Your task to perform on an android device: View the shopping cart on target.com. Add razer kraken to the cart on target.com, then select checkout. Image 0: 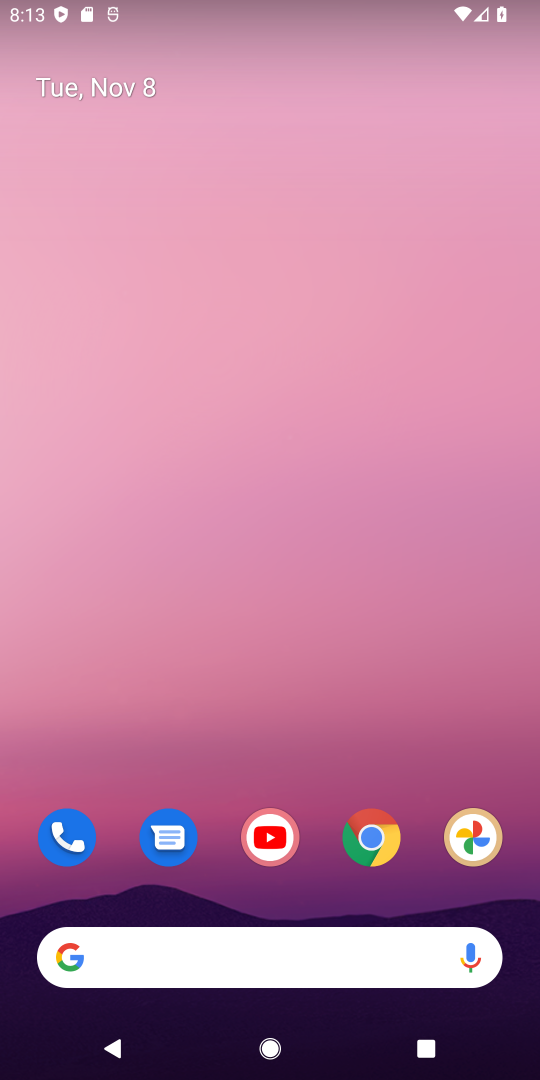
Step 0: click (365, 841)
Your task to perform on an android device: View the shopping cart on target.com. Add razer kraken to the cart on target.com, then select checkout. Image 1: 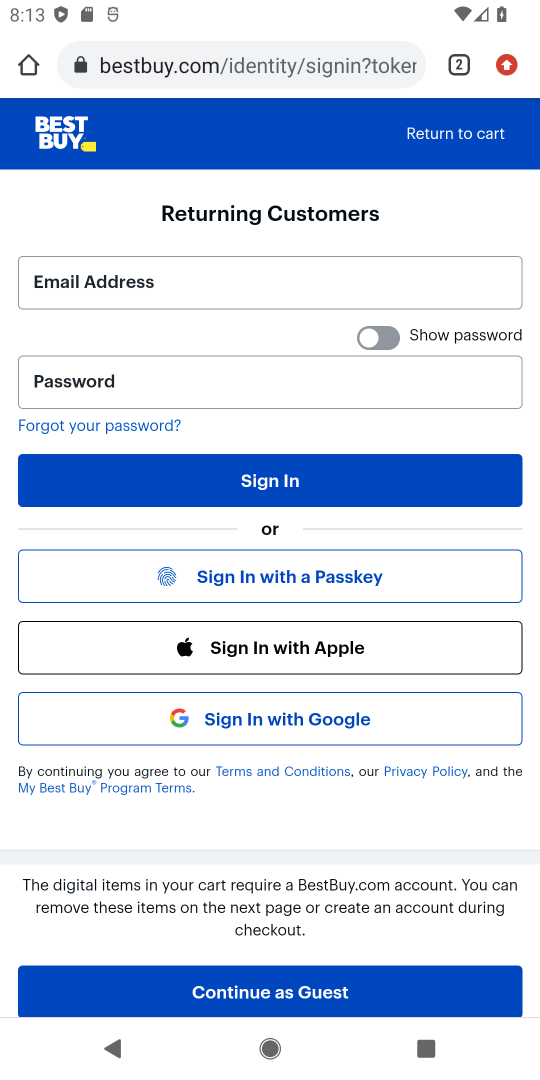
Step 1: click (456, 66)
Your task to perform on an android device: View the shopping cart on target.com. Add razer kraken to the cart on target.com, then select checkout. Image 2: 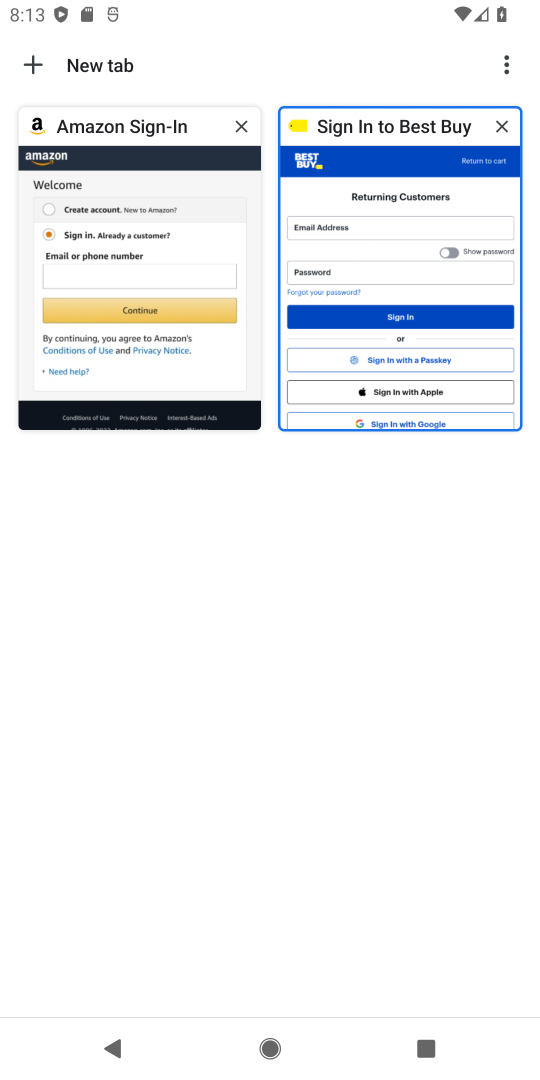
Step 2: click (40, 68)
Your task to perform on an android device: View the shopping cart on target.com. Add razer kraken to the cart on target.com, then select checkout. Image 3: 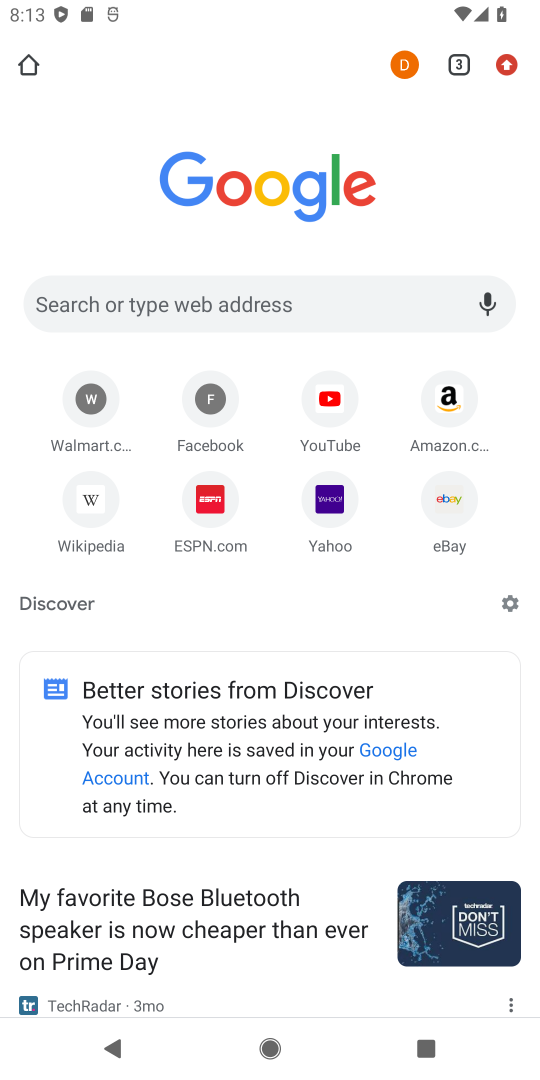
Step 3: click (213, 299)
Your task to perform on an android device: View the shopping cart on target.com. Add razer kraken to the cart on target.com, then select checkout. Image 4: 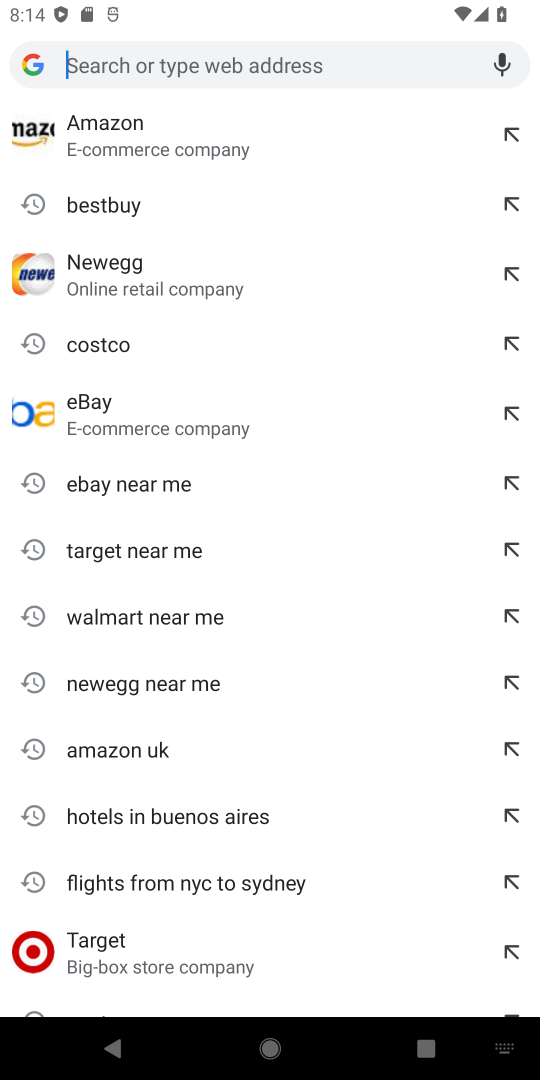
Step 4: click (108, 952)
Your task to perform on an android device: View the shopping cart on target.com. Add razer kraken to the cart on target.com, then select checkout. Image 5: 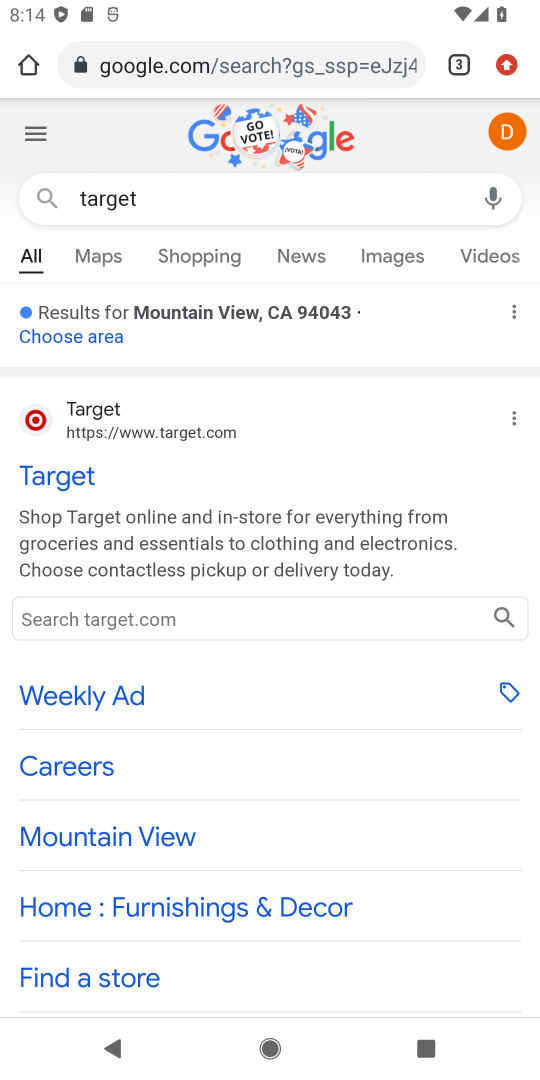
Step 5: click (144, 612)
Your task to perform on an android device: View the shopping cart on target.com. Add razer kraken to the cart on target.com, then select checkout. Image 6: 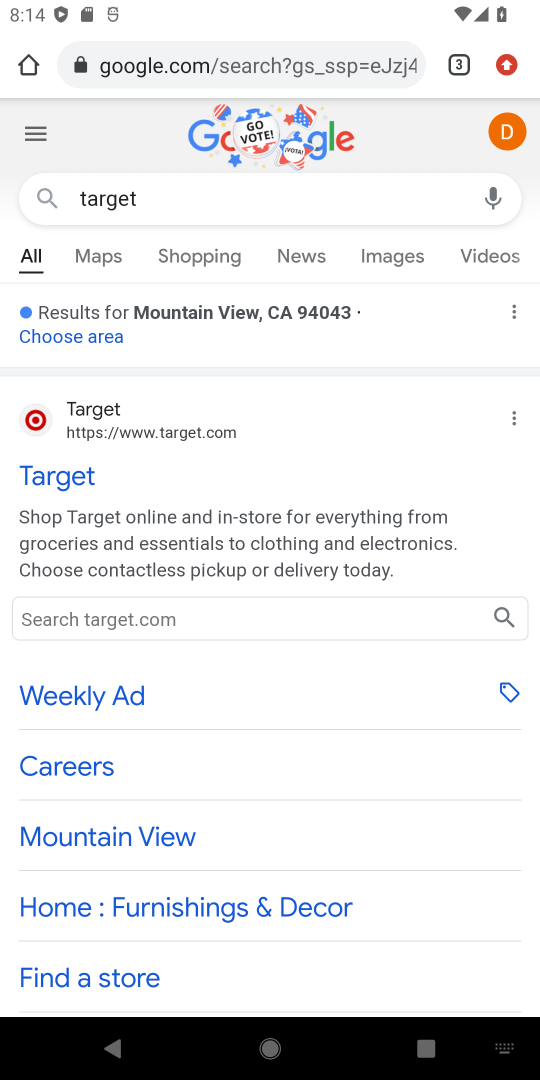
Step 6: type "razer kraken"
Your task to perform on an android device: View the shopping cart on target.com. Add razer kraken to the cart on target.com, then select checkout. Image 7: 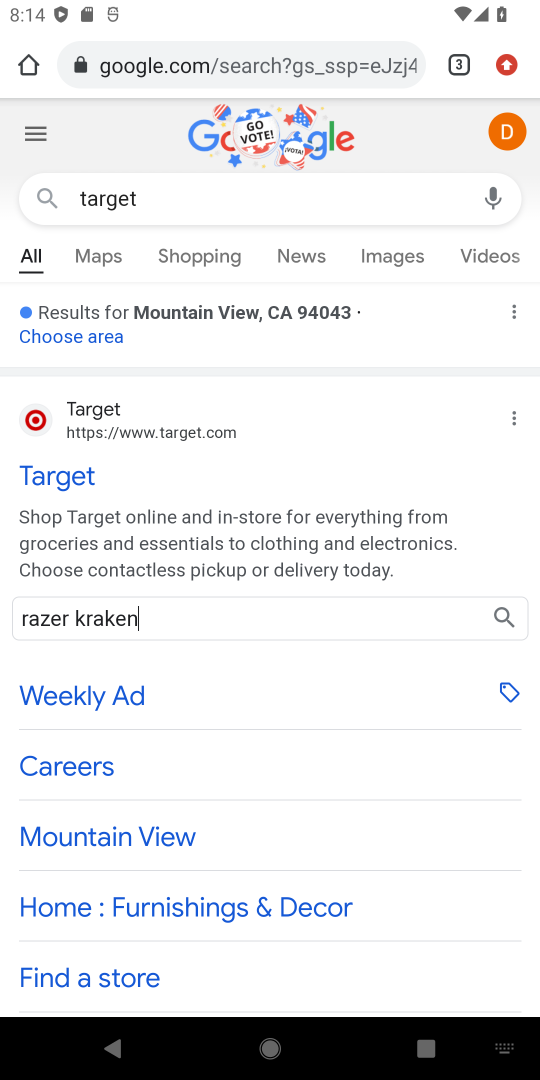
Step 7: click (506, 611)
Your task to perform on an android device: View the shopping cart on target.com. Add razer kraken to the cart on target.com, then select checkout. Image 8: 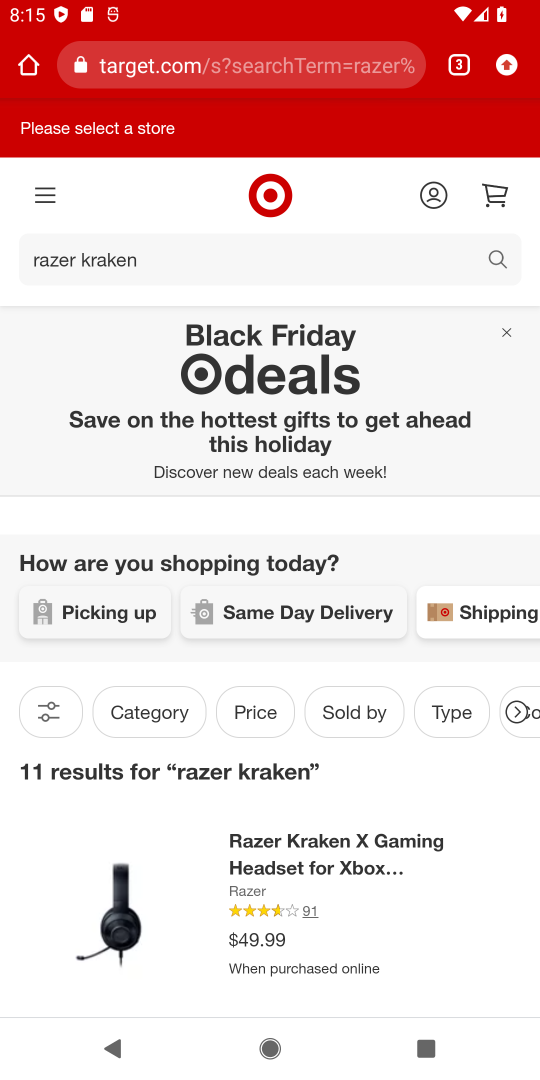
Step 8: drag from (348, 929) to (317, 227)
Your task to perform on an android device: View the shopping cart on target.com. Add razer kraken to the cart on target.com, then select checkout. Image 9: 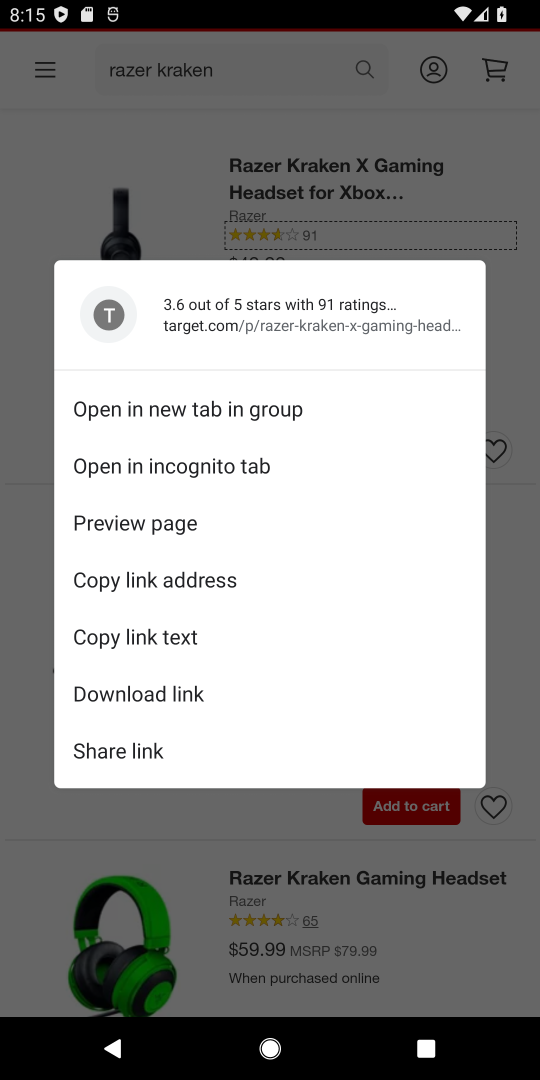
Step 9: click (327, 904)
Your task to perform on an android device: View the shopping cart on target.com. Add razer kraken to the cart on target.com, then select checkout. Image 10: 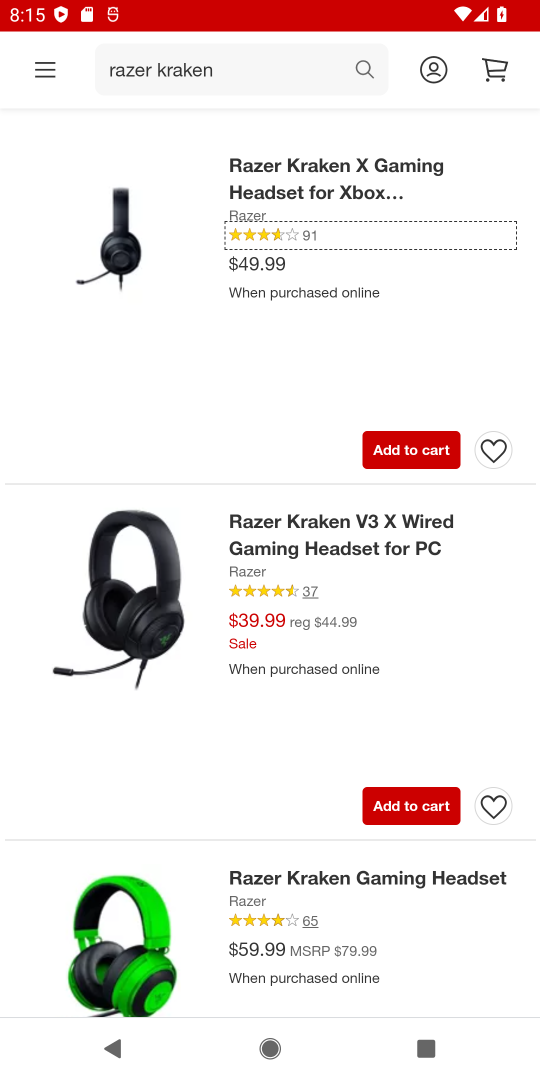
Step 10: click (400, 809)
Your task to perform on an android device: View the shopping cart on target.com. Add razer kraken to the cart on target.com, then select checkout. Image 11: 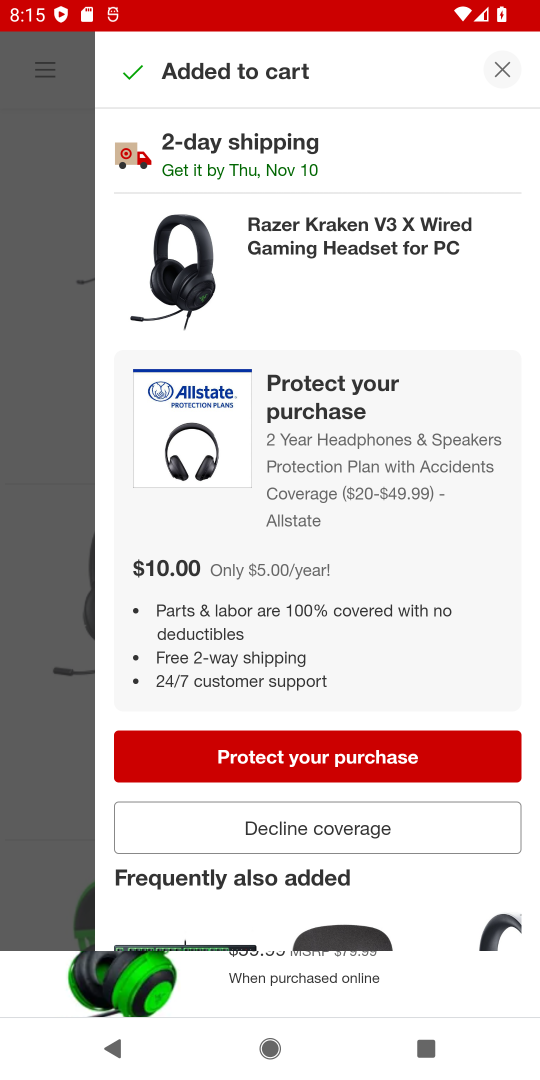
Step 11: click (313, 822)
Your task to perform on an android device: View the shopping cart on target.com. Add razer kraken to the cart on target.com, then select checkout. Image 12: 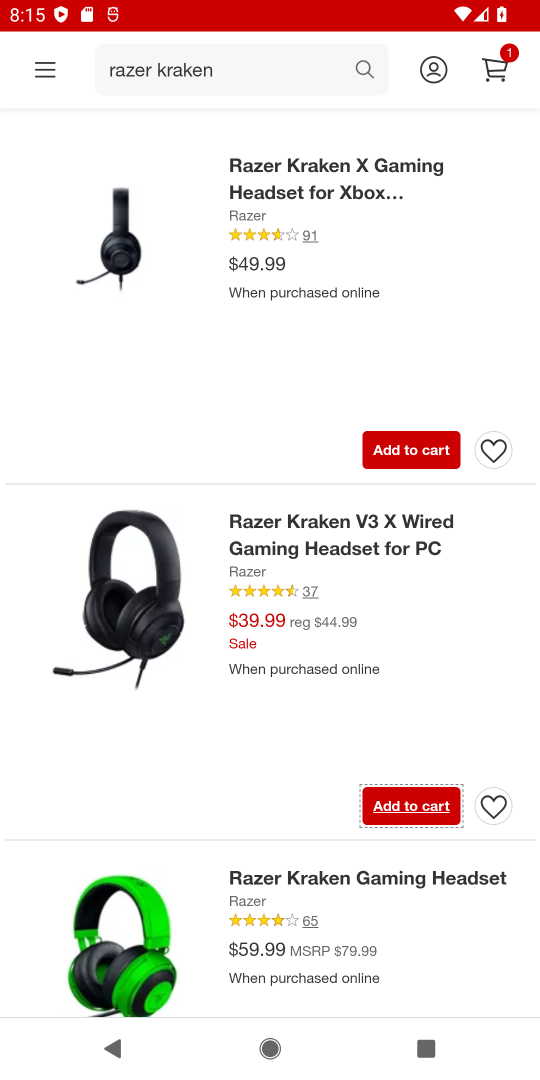
Step 12: click (496, 69)
Your task to perform on an android device: View the shopping cart on target.com. Add razer kraken to the cart on target.com, then select checkout. Image 13: 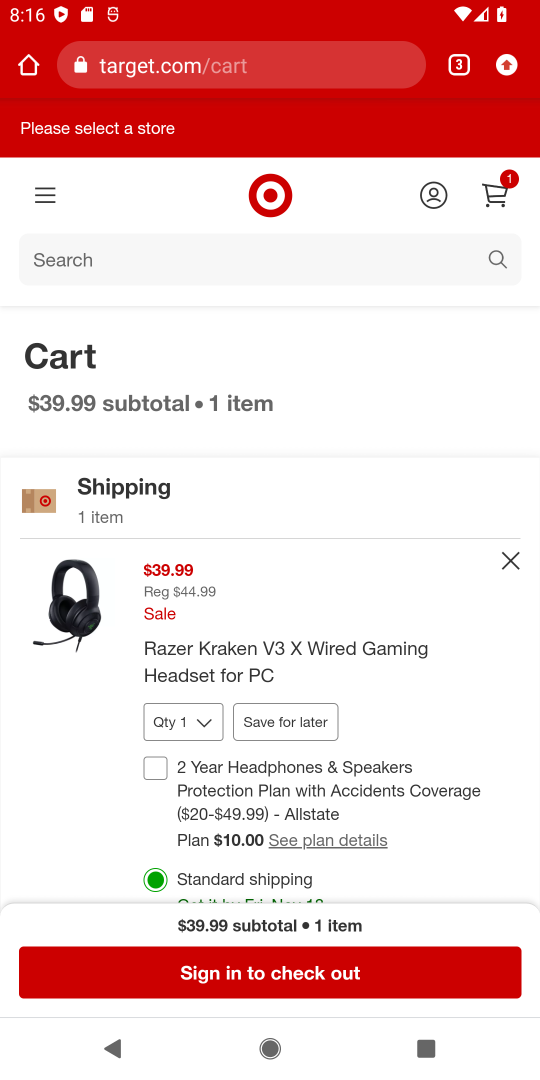
Step 13: click (215, 984)
Your task to perform on an android device: View the shopping cart on target.com. Add razer kraken to the cart on target.com, then select checkout. Image 14: 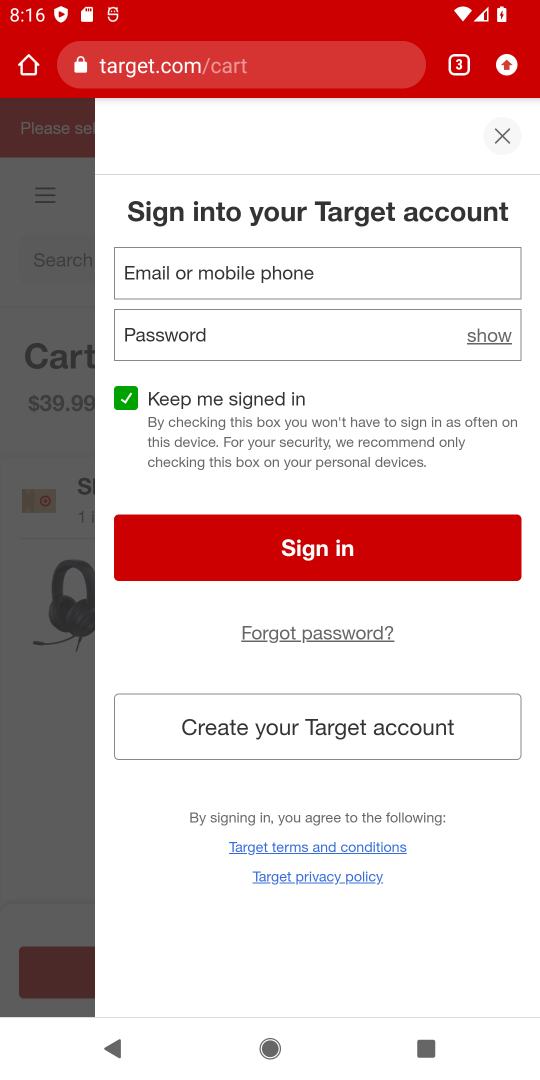
Step 14: task complete